Your task to perform on an android device: turn on the 24-hour format for clock Image 0: 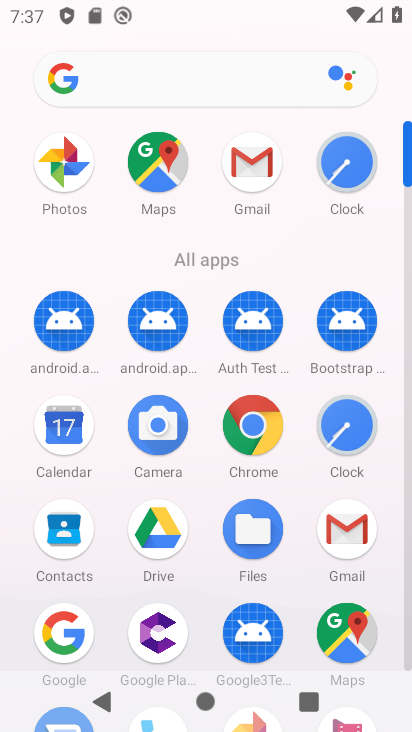
Step 0: click (344, 157)
Your task to perform on an android device: turn on the 24-hour format for clock Image 1: 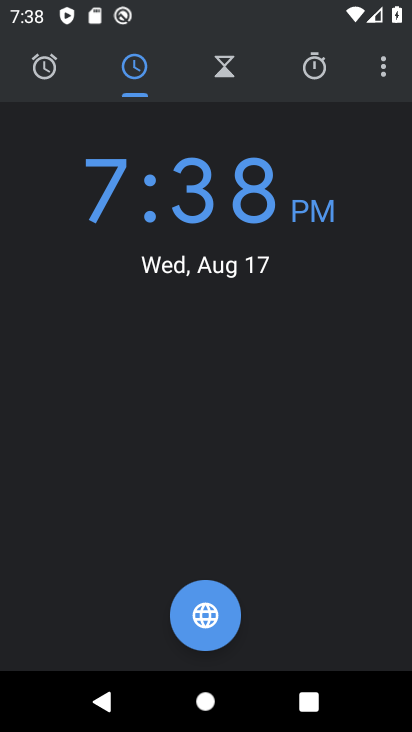
Step 1: click (383, 74)
Your task to perform on an android device: turn on the 24-hour format for clock Image 2: 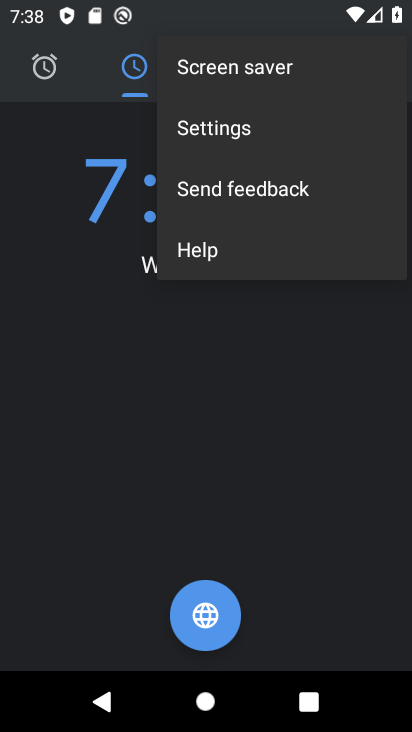
Step 2: click (298, 141)
Your task to perform on an android device: turn on the 24-hour format for clock Image 3: 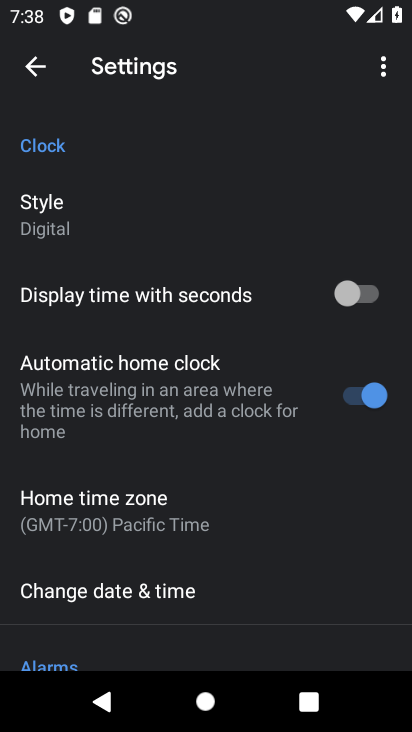
Step 3: click (249, 607)
Your task to perform on an android device: turn on the 24-hour format for clock Image 4: 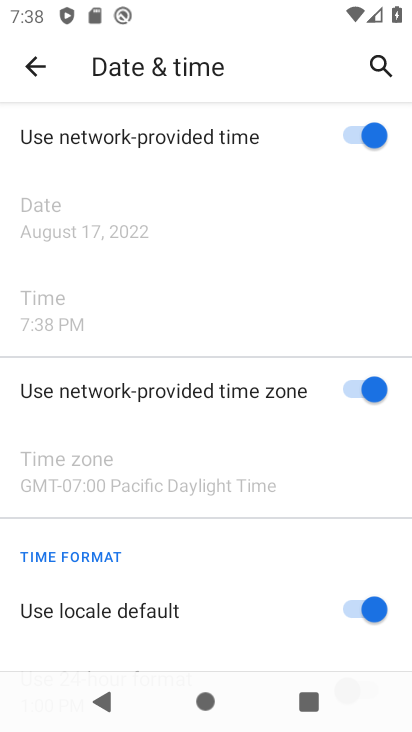
Step 4: drag from (279, 527) to (286, 383)
Your task to perform on an android device: turn on the 24-hour format for clock Image 5: 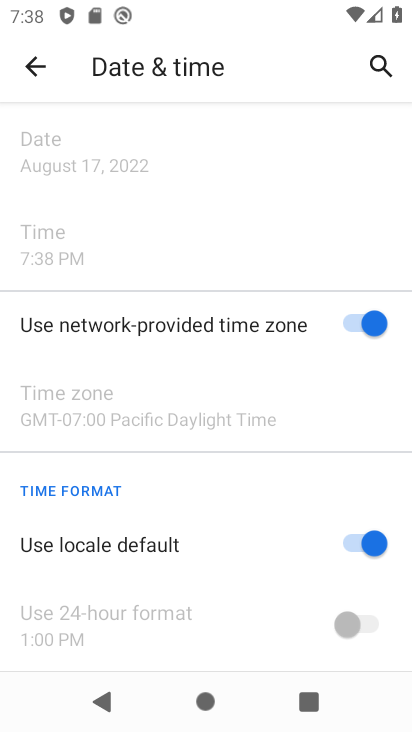
Step 5: click (357, 534)
Your task to perform on an android device: turn on the 24-hour format for clock Image 6: 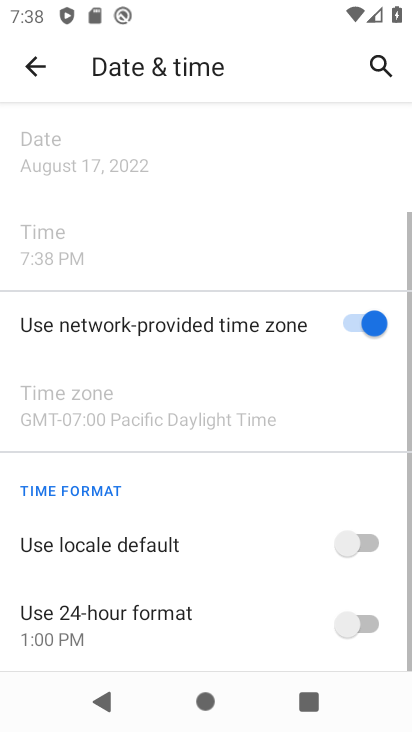
Step 6: click (361, 620)
Your task to perform on an android device: turn on the 24-hour format for clock Image 7: 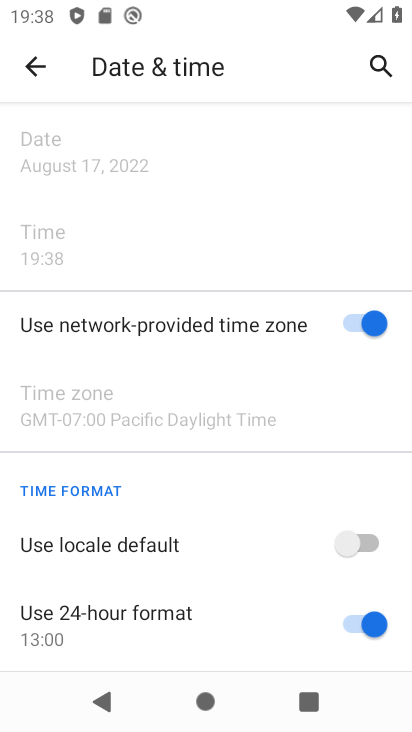
Step 7: click (36, 61)
Your task to perform on an android device: turn on the 24-hour format for clock Image 8: 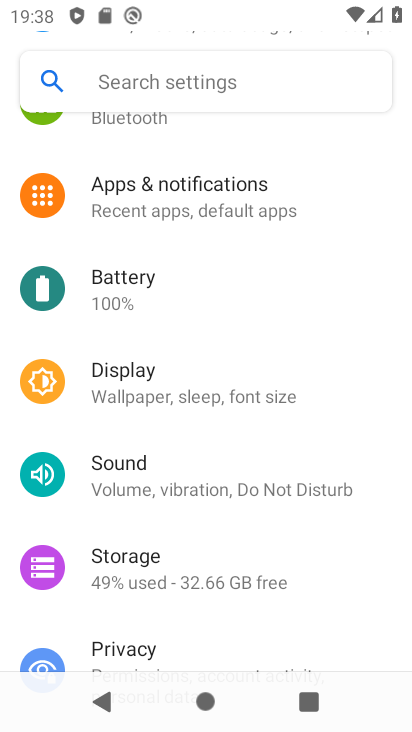
Step 8: task complete